Your task to perform on an android device: check android version Image 0: 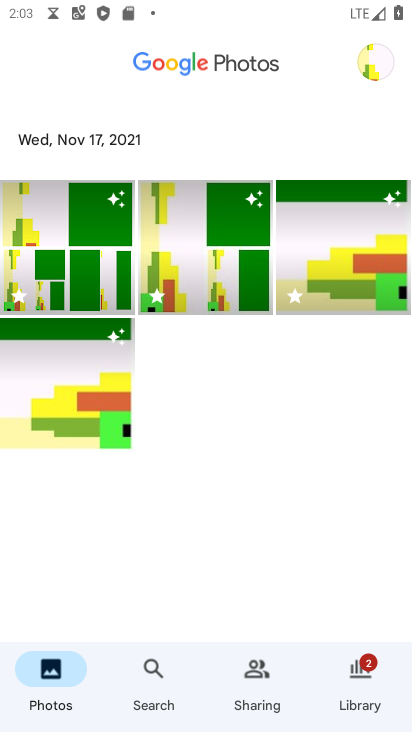
Step 0: press home button
Your task to perform on an android device: check android version Image 1: 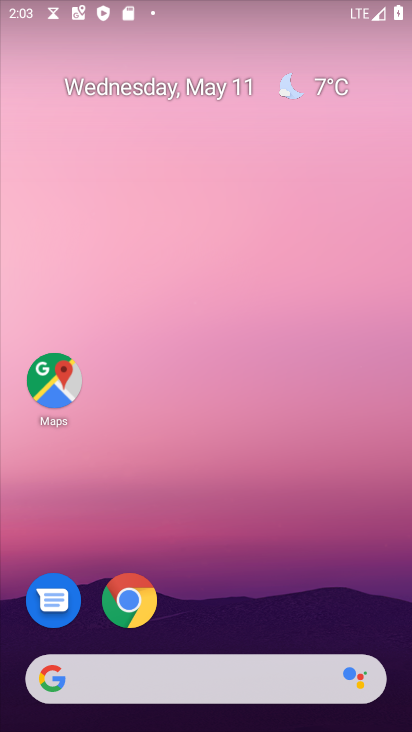
Step 1: drag from (289, 590) to (210, 67)
Your task to perform on an android device: check android version Image 2: 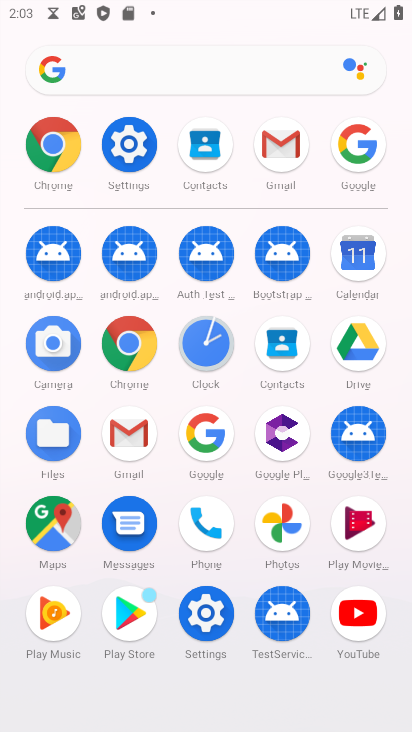
Step 2: click (125, 147)
Your task to perform on an android device: check android version Image 3: 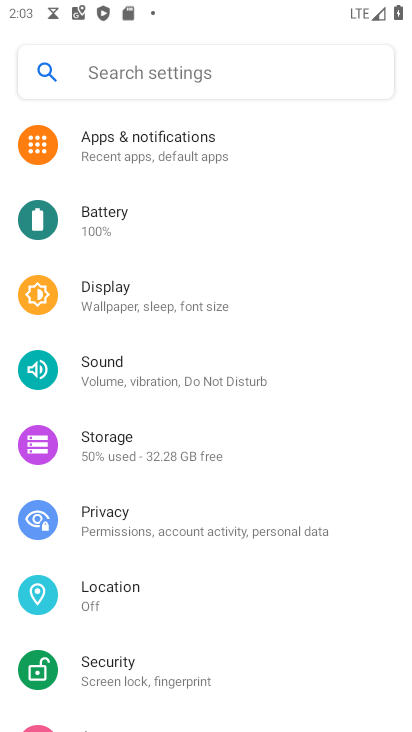
Step 3: drag from (210, 605) to (189, 128)
Your task to perform on an android device: check android version Image 4: 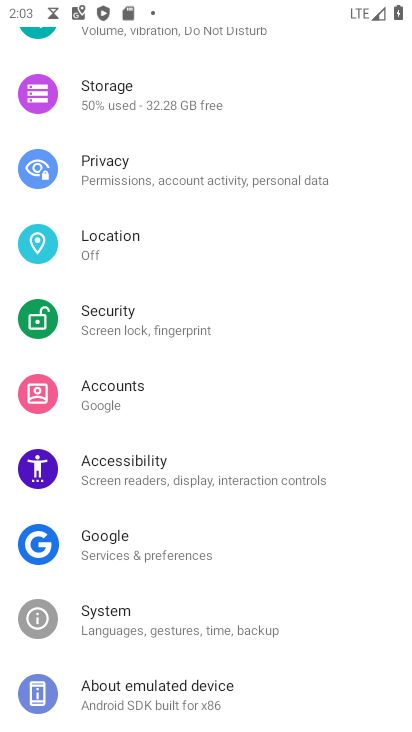
Step 4: drag from (217, 572) to (213, 151)
Your task to perform on an android device: check android version Image 5: 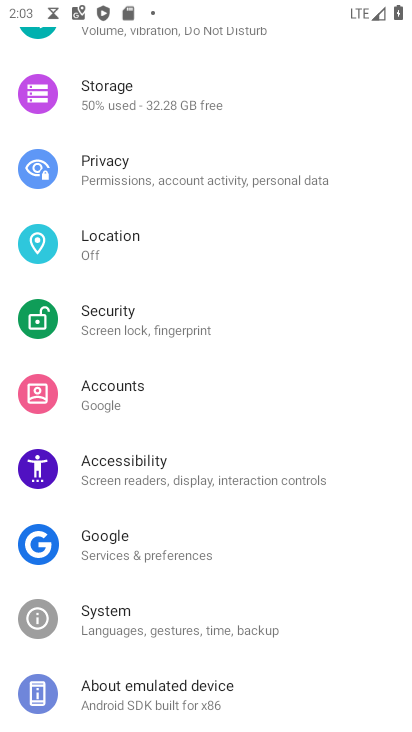
Step 5: click (156, 704)
Your task to perform on an android device: check android version Image 6: 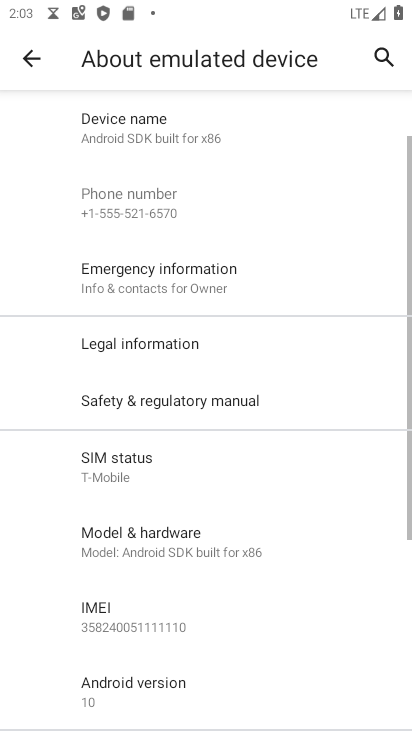
Step 6: click (159, 684)
Your task to perform on an android device: check android version Image 7: 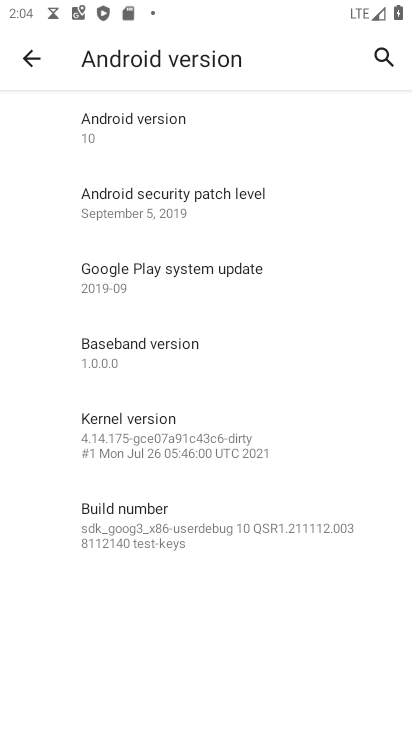
Step 7: task complete